Your task to perform on an android device: Open Chrome and go to settings Image 0: 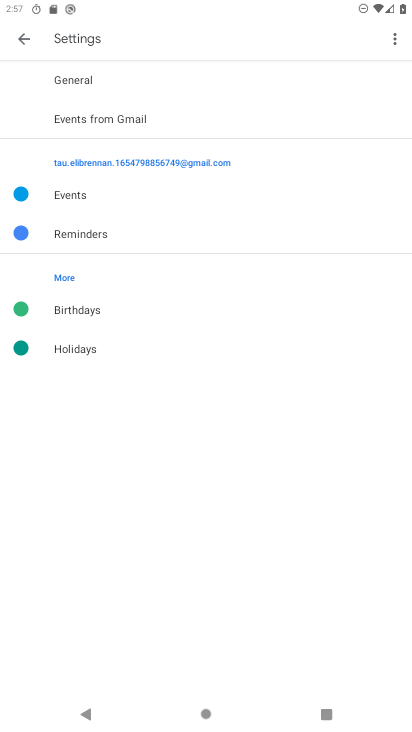
Step 0: press home button
Your task to perform on an android device: Open Chrome and go to settings Image 1: 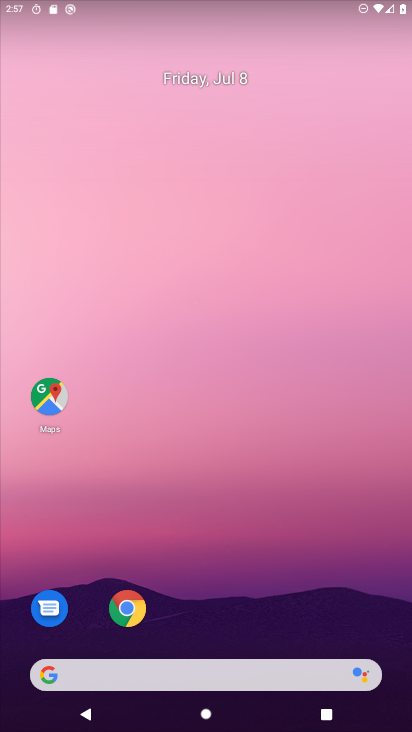
Step 1: click (129, 607)
Your task to perform on an android device: Open Chrome and go to settings Image 2: 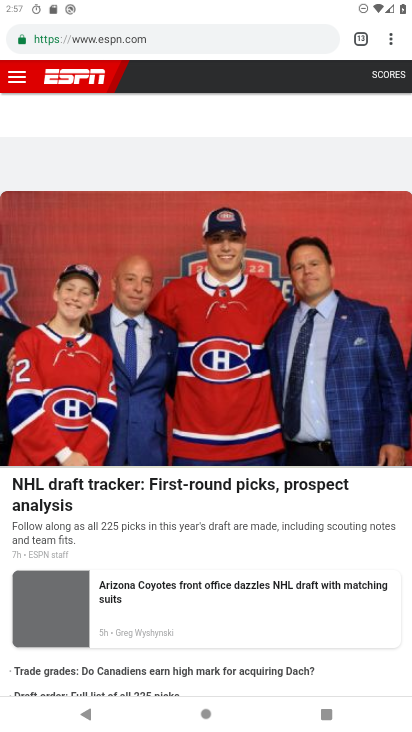
Step 2: click (391, 42)
Your task to perform on an android device: Open Chrome and go to settings Image 3: 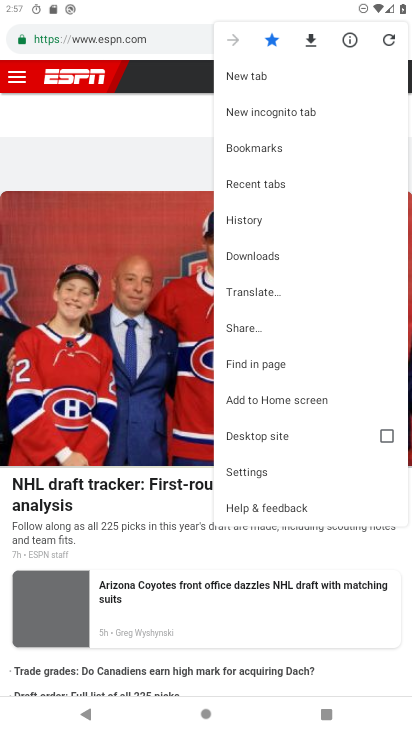
Step 3: click (251, 472)
Your task to perform on an android device: Open Chrome and go to settings Image 4: 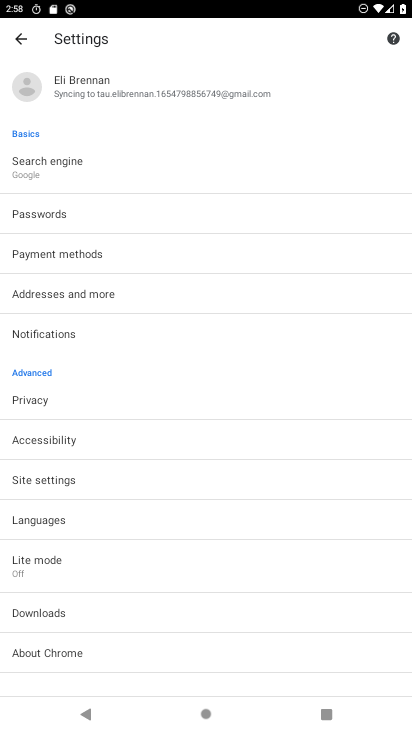
Step 4: task complete